Your task to perform on an android device: Show me popular games on the Play Store Image 0: 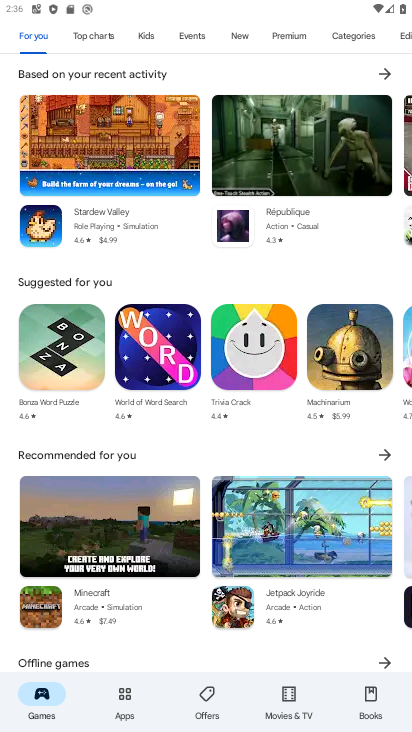
Step 0: drag from (209, 593) to (314, 95)
Your task to perform on an android device: Show me popular games on the Play Store Image 1: 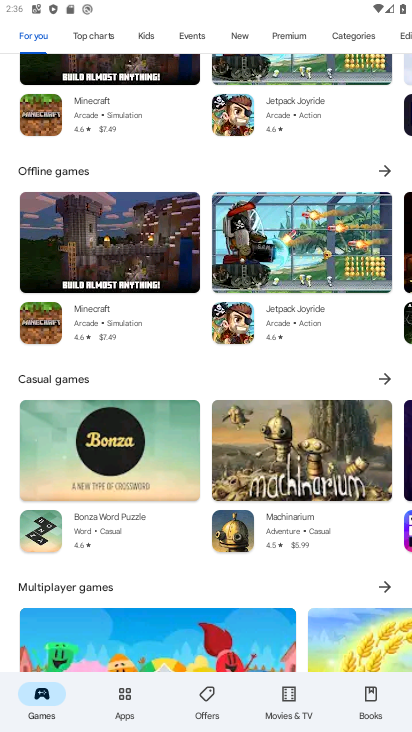
Step 1: drag from (281, 454) to (368, 103)
Your task to perform on an android device: Show me popular games on the Play Store Image 2: 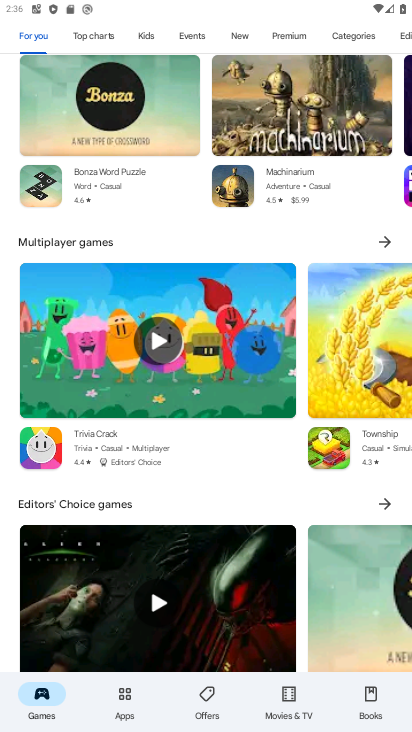
Step 2: drag from (247, 518) to (332, 107)
Your task to perform on an android device: Show me popular games on the Play Store Image 3: 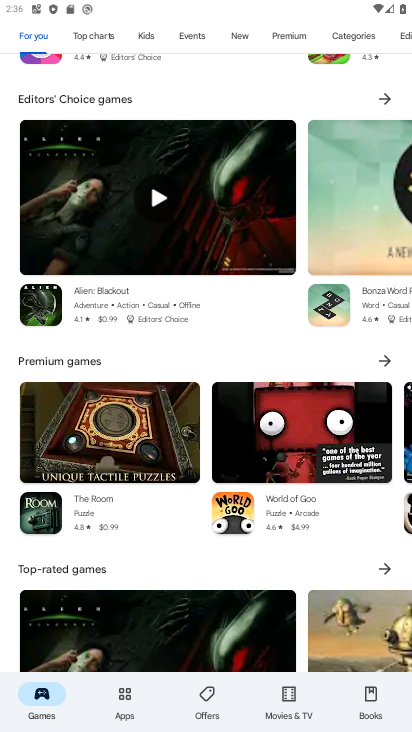
Step 3: drag from (261, 641) to (348, 174)
Your task to perform on an android device: Show me popular games on the Play Store Image 4: 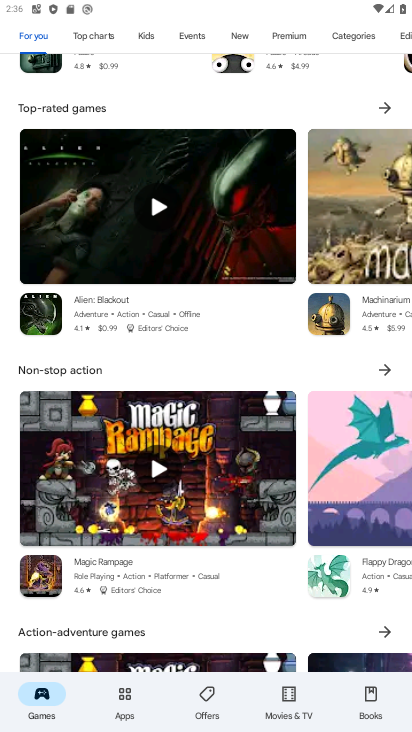
Step 4: drag from (241, 555) to (350, 30)
Your task to perform on an android device: Show me popular games on the Play Store Image 5: 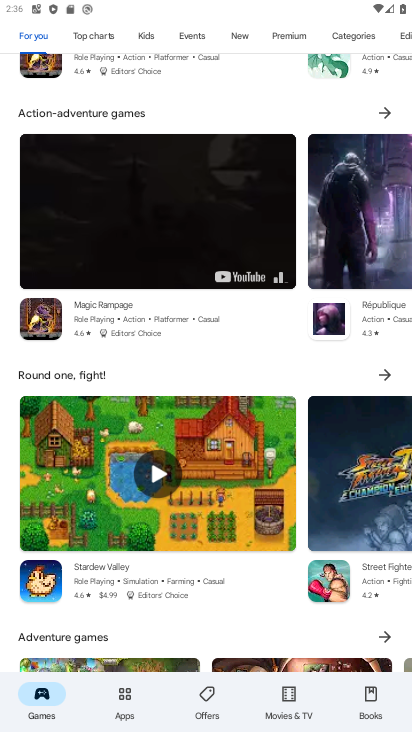
Step 5: drag from (306, 588) to (361, 65)
Your task to perform on an android device: Show me popular games on the Play Store Image 6: 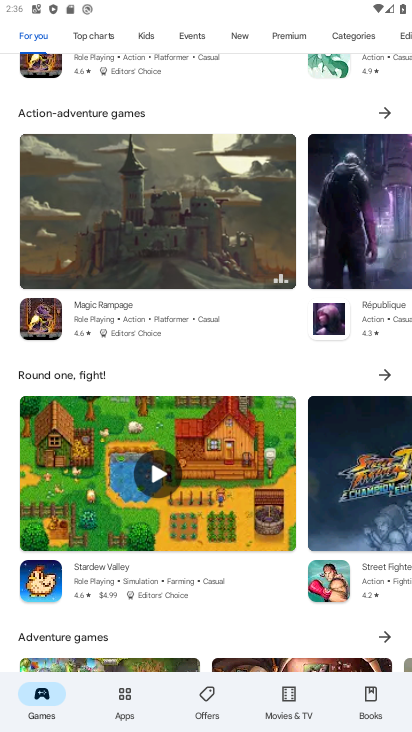
Step 6: drag from (267, 604) to (343, 2)
Your task to perform on an android device: Show me popular games on the Play Store Image 7: 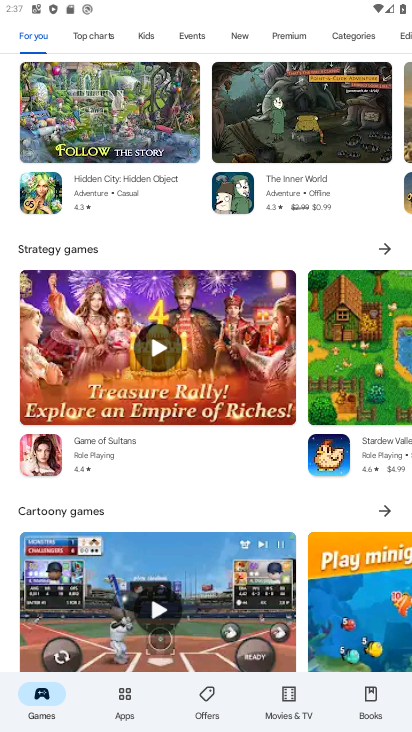
Step 7: drag from (252, 392) to (368, 19)
Your task to perform on an android device: Show me popular games on the Play Store Image 8: 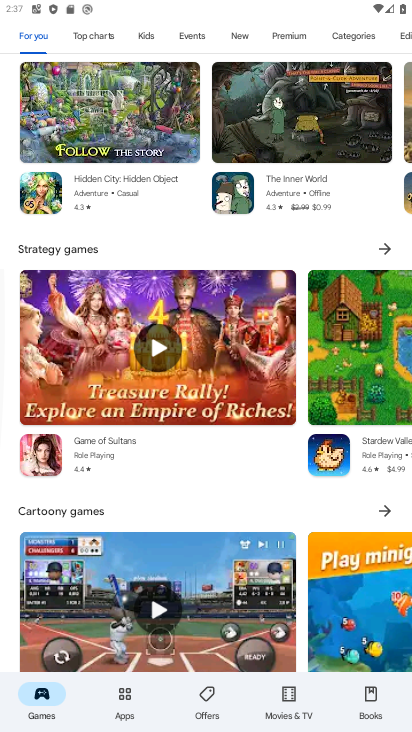
Step 8: drag from (226, 589) to (350, 31)
Your task to perform on an android device: Show me popular games on the Play Store Image 9: 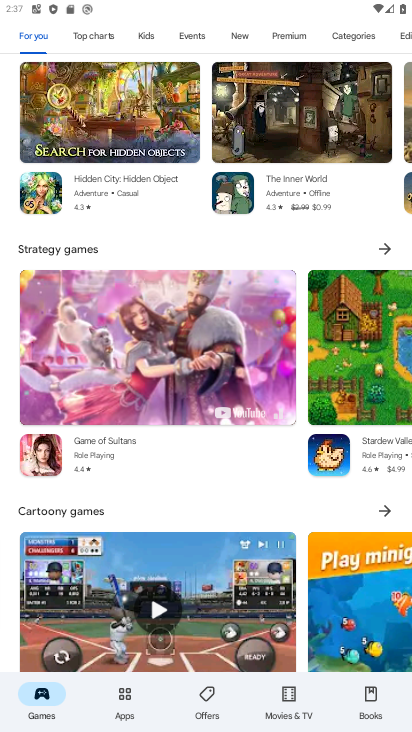
Step 9: click (291, 136)
Your task to perform on an android device: Show me popular games on the Play Store Image 10: 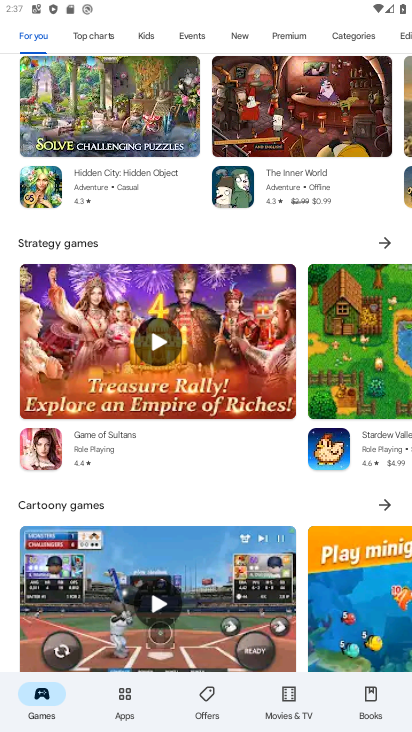
Step 10: task complete